Your task to perform on an android device: Show me the alarms in the clock app Image 0: 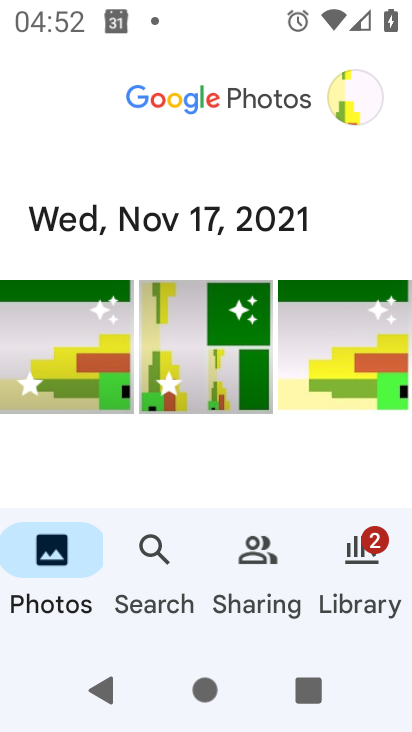
Step 0: press home button
Your task to perform on an android device: Show me the alarms in the clock app Image 1: 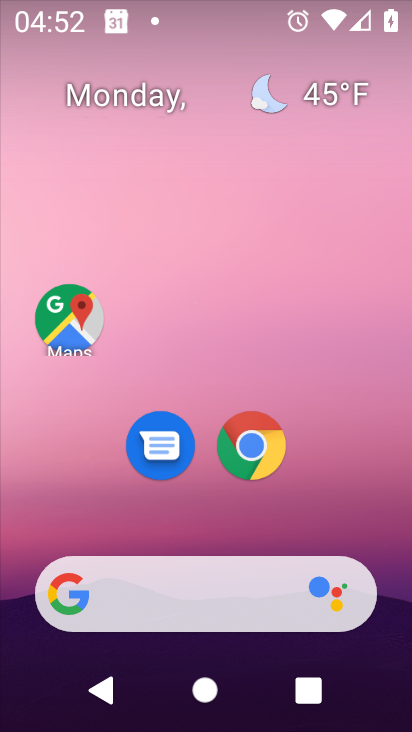
Step 1: drag from (244, 564) to (242, 78)
Your task to perform on an android device: Show me the alarms in the clock app Image 2: 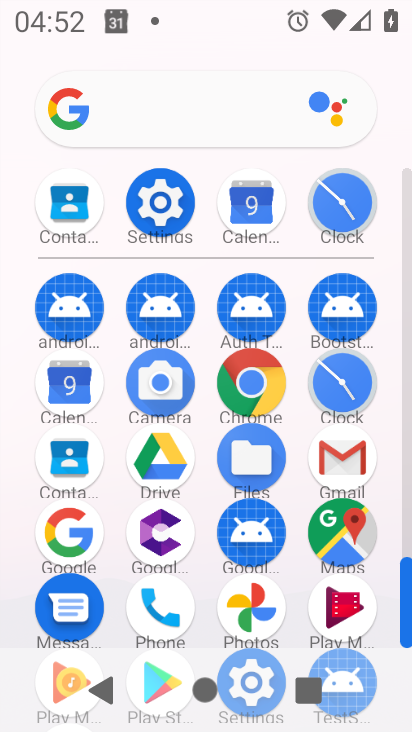
Step 2: click (330, 390)
Your task to perform on an android device: Show me the alarms in the clock app Image 3: 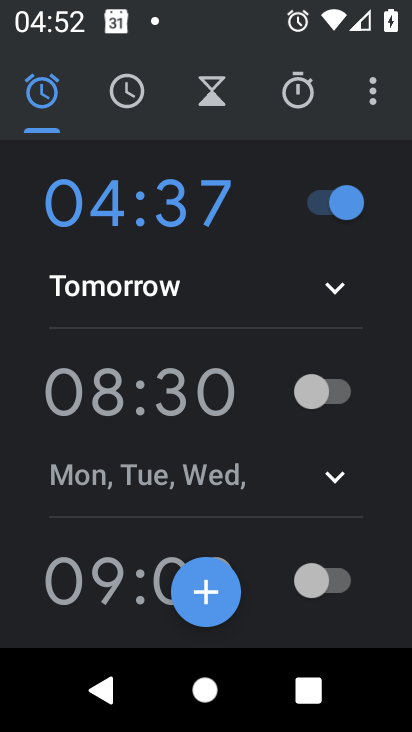
Step 3: task complete